Your task to perform on an android device: turn pop-ups on in chrome Image 0: 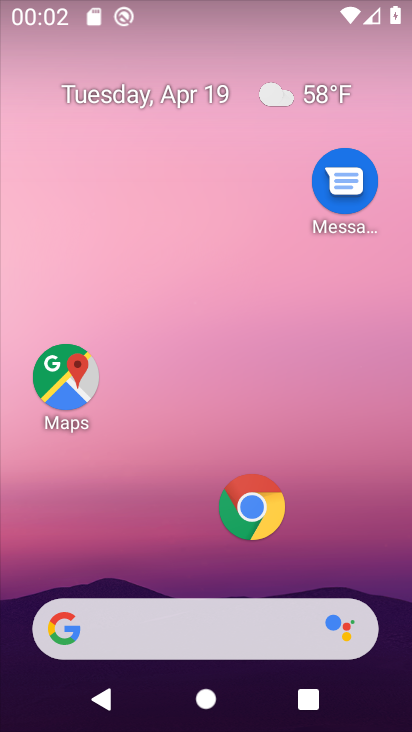
Step 0: click (245, 501)
Your task to perform on an android device: turn pop-ups on in chrome Image 1: 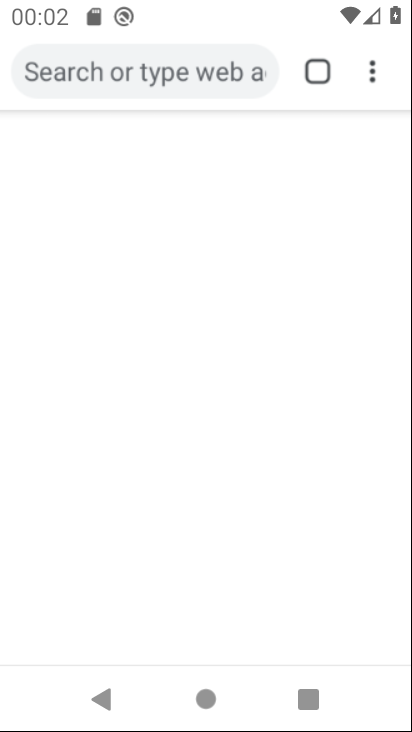
Step 1: click (372, 75)
Your task to perform on an android device: turn pop-ups on in chrome Image 2: 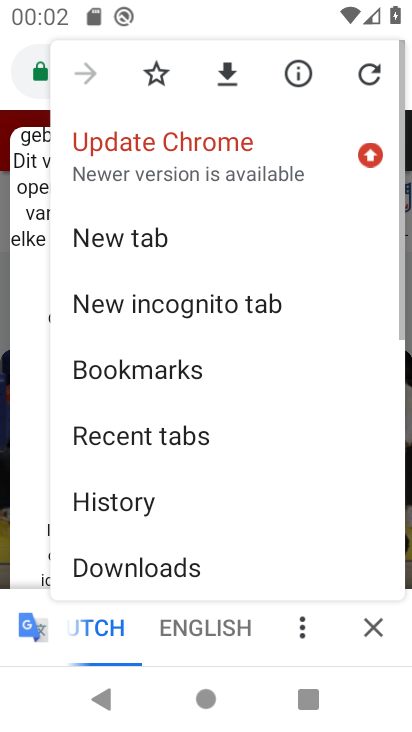
Step 2: drag from (176, 519) to (294, 47)
Your task to perform on an android device: turn pop-ups on in chrome Image 3: 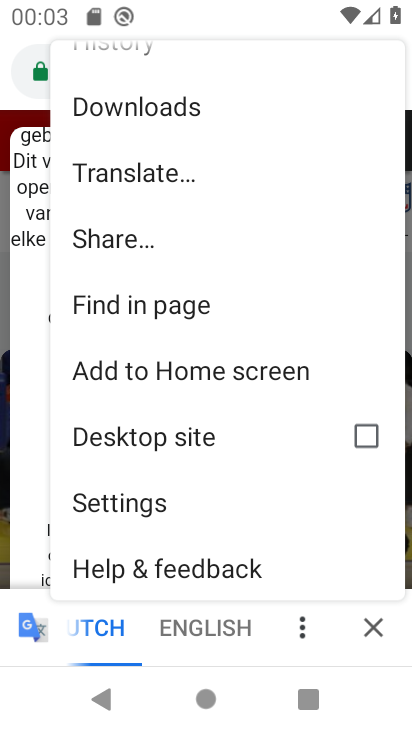
Step 3: click (156, 494)
Your task to perform on an android device: turn pop-ups on in chrome Image 4: 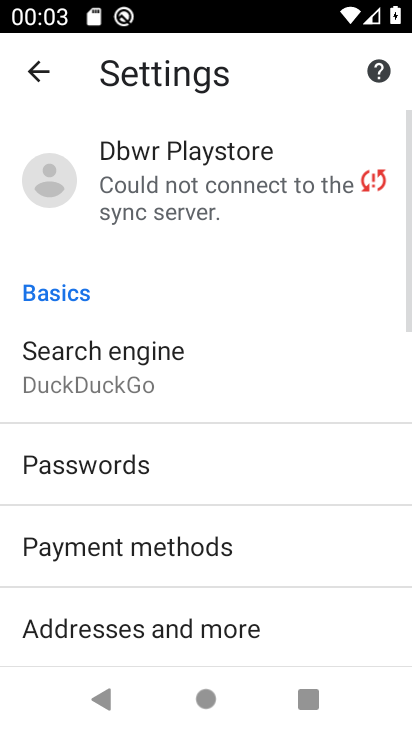
Step 4: drag from (116, 511) to (183, 89)
Your task to perform on an android device: turn pop-ups on in chrome Image 5: 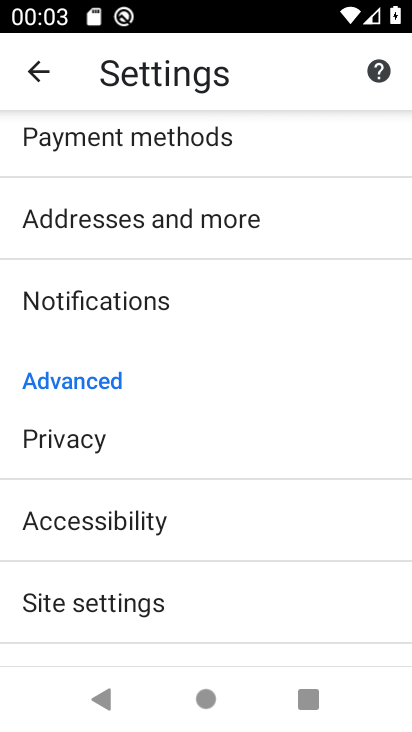
Step 5: click (80, 608)
Your task to perform on an android device: turn pop-ups on in chrome Image 6: 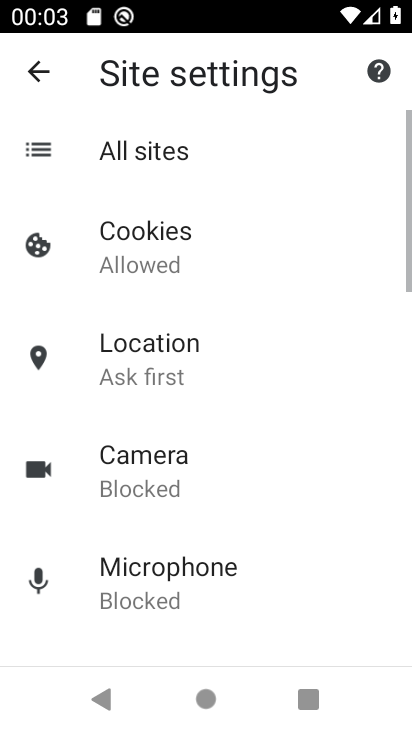
Step 6: drag from (139, 541) to (220, 124)
Your task to perform on an android device: turn pop-ups on in chrome Image 7: 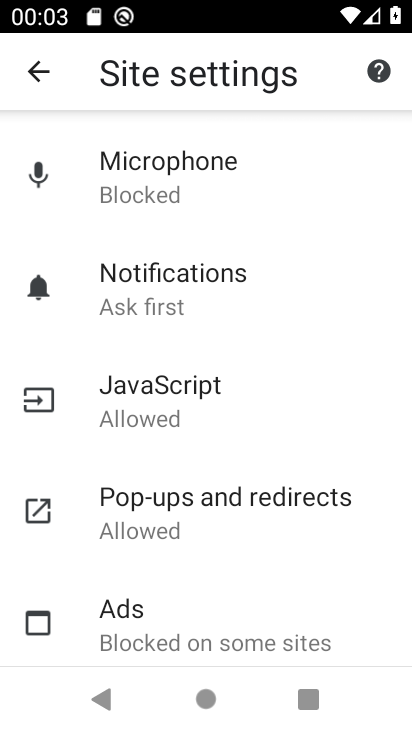
Step 7: click (132, 504)
Your task to perform on an android device: turn pop-ups on in chrome Image 8: 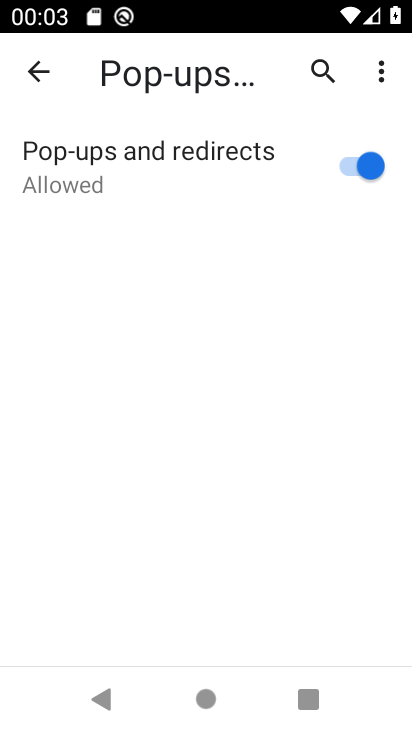
Step 8: task complete